Your task to perform on an android device: toggle priority inbox in the gmail app Image 0: 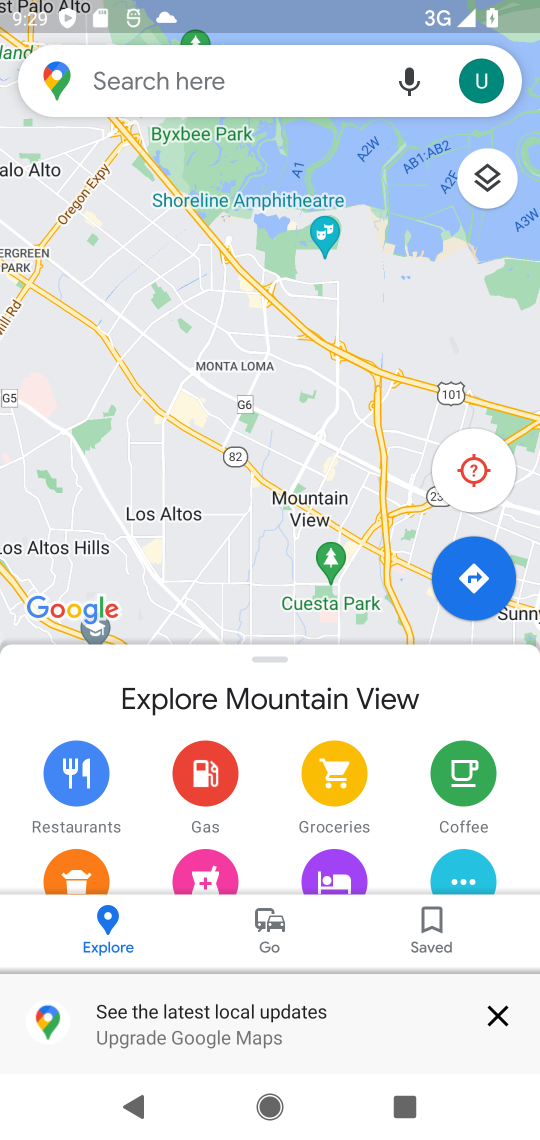
Step 0: press home button
Your task to perform on an android device: toggle priority inbox in the gmail app Image 1: 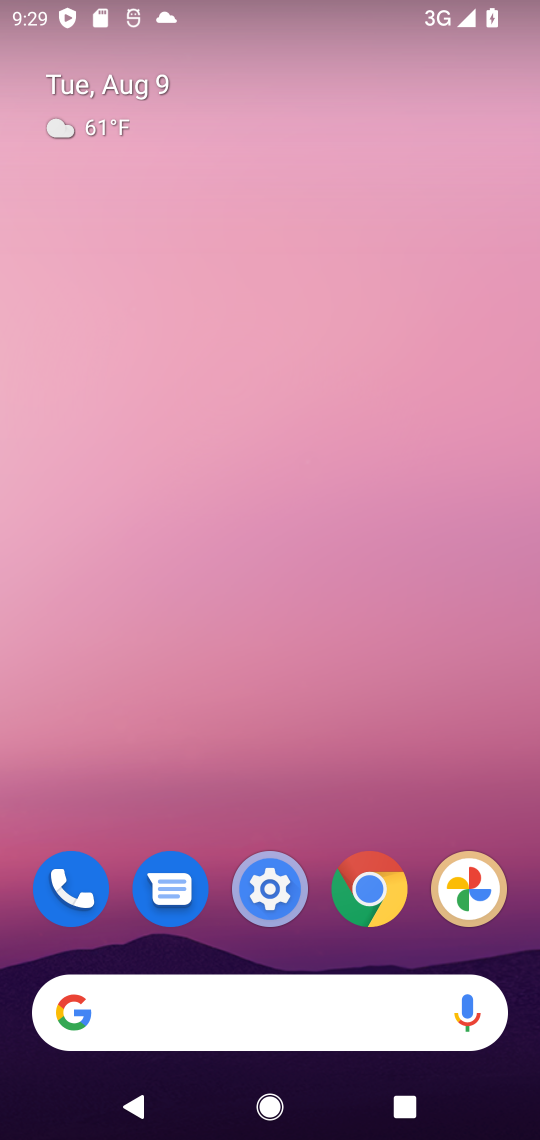
Step 1: drag from (181, 943) to (87, 205)
Your task to perform on an android device: toggle priority inbox in the gmail app Image 2: 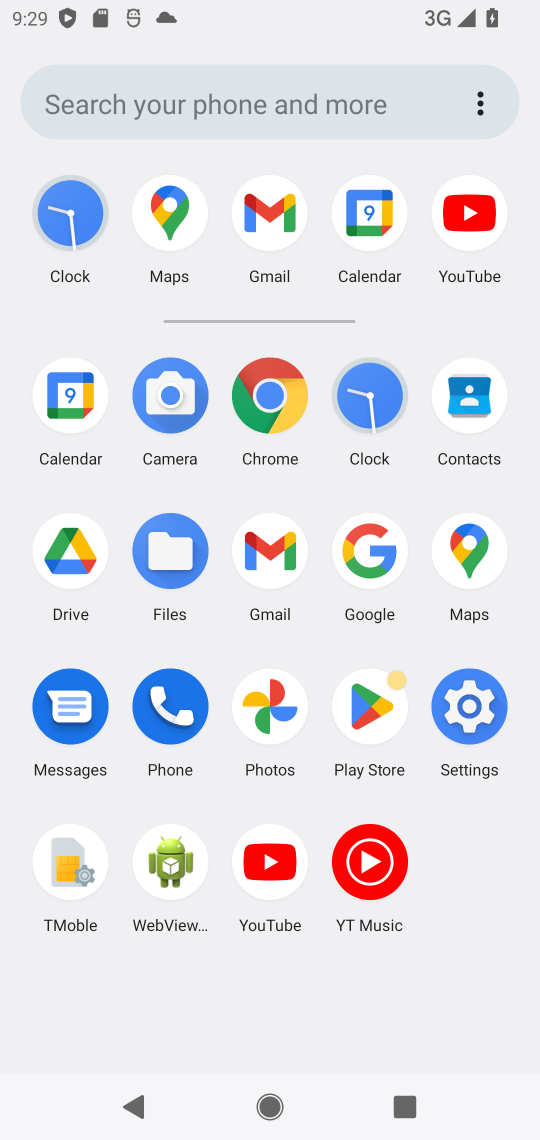
Step 2: click (262, 216)
Your task to perform on an android device: toggle priority inbox in the gmail app Image 3: 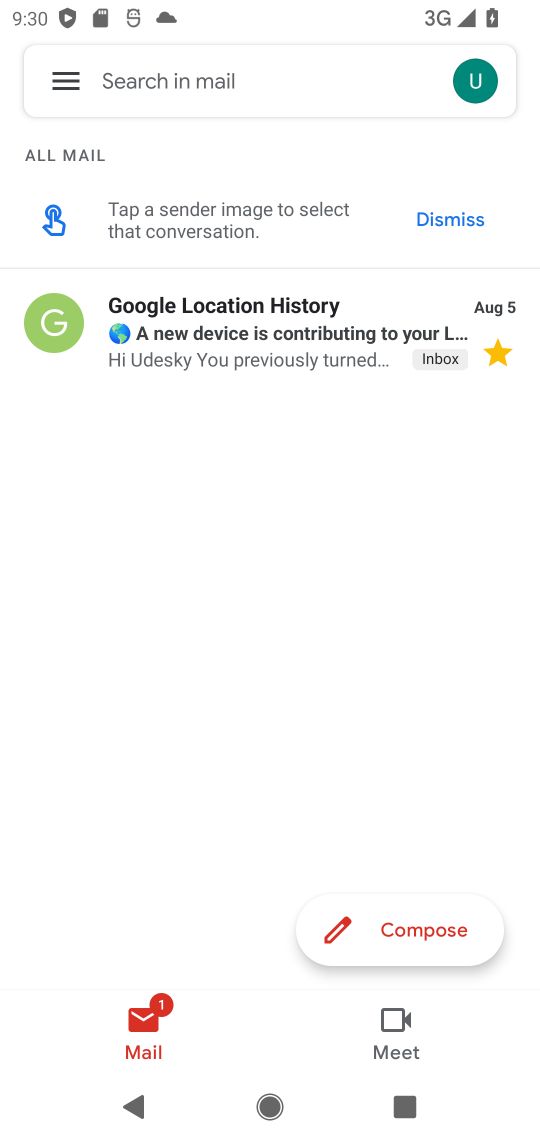
Step 3: click (45, 71)
Your task to perform on an android device: toggle priority inbox in the gmail app Image 4: 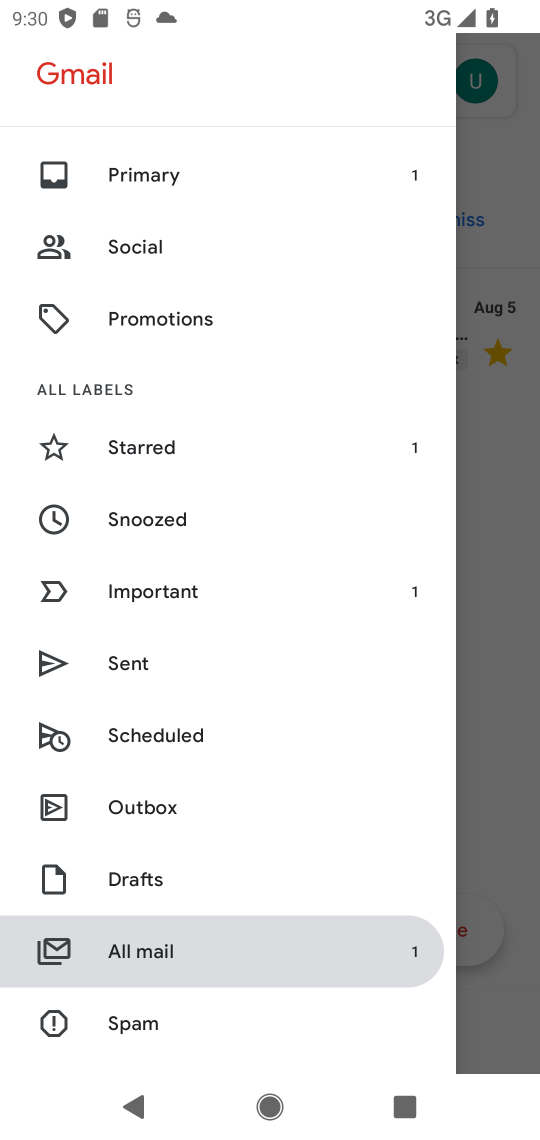
Step 4: drag from (191, 968) to (260, 197)
Your task to perform on an android device: toggle priority inbox in the gmail app Image 5: 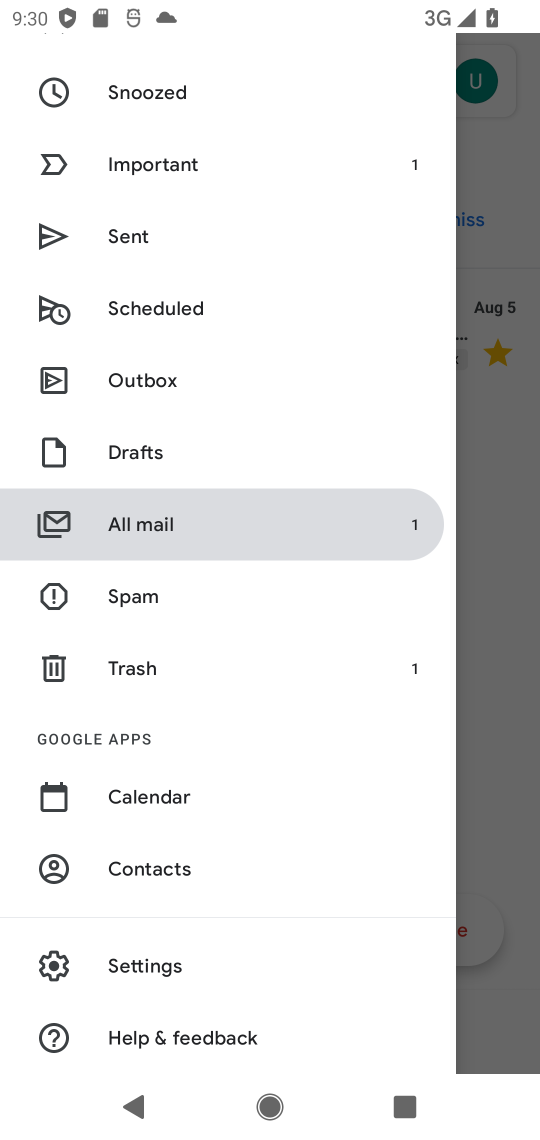
Step 5: click (161, 973)
Your task to perform on an android device: toggle priority inbox in the gmail app Image 6: 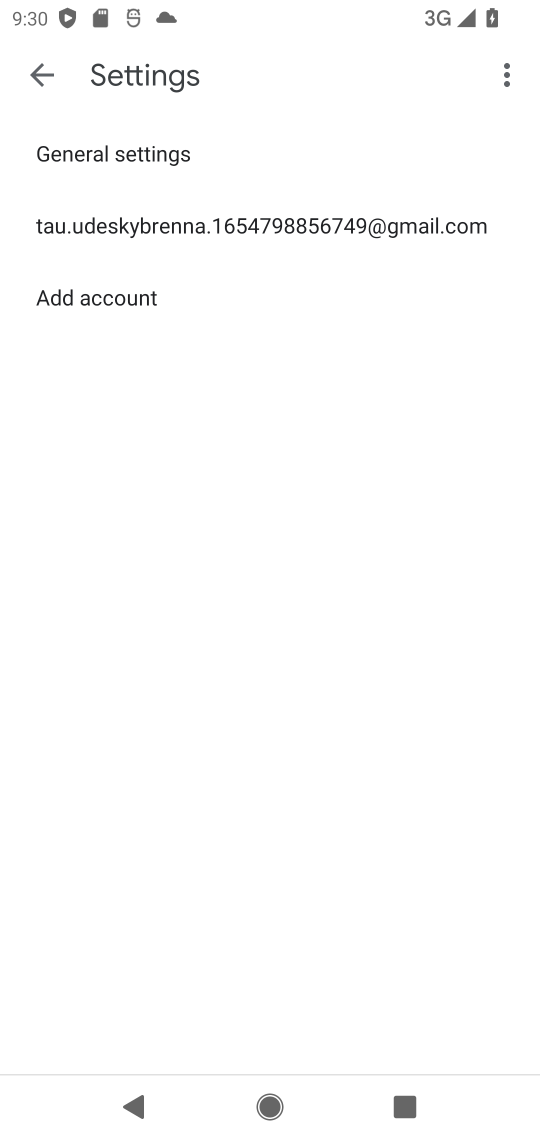
Step 6: click (127, 221)
Your task to perform on an android device: toggle priority inbox in the gmail app Image 7: 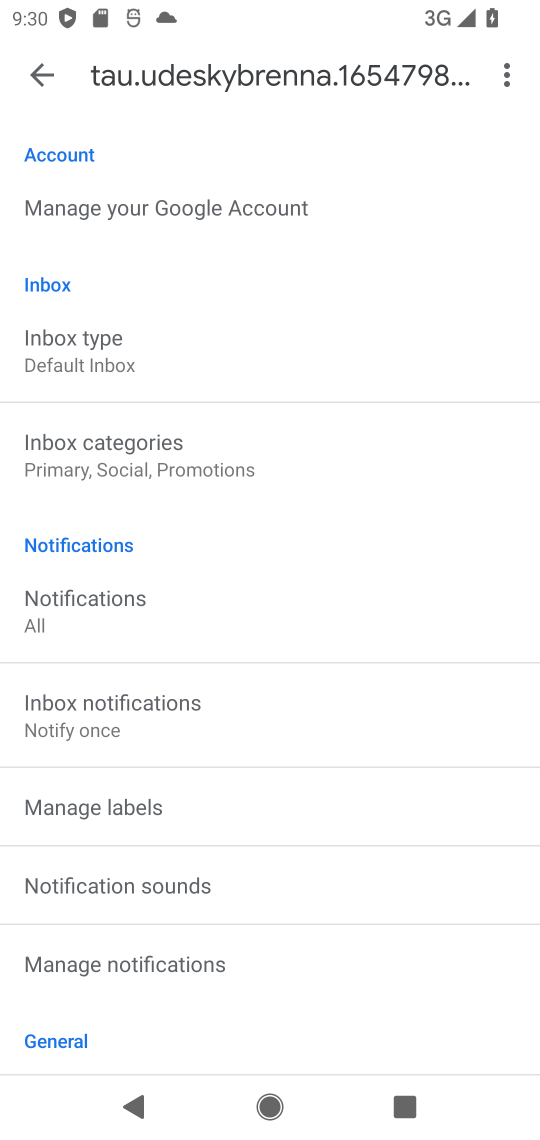
Step 7: click (94, 354)
Your task to perform on an android device: toggle priority inbox in the gmail app Image 8: 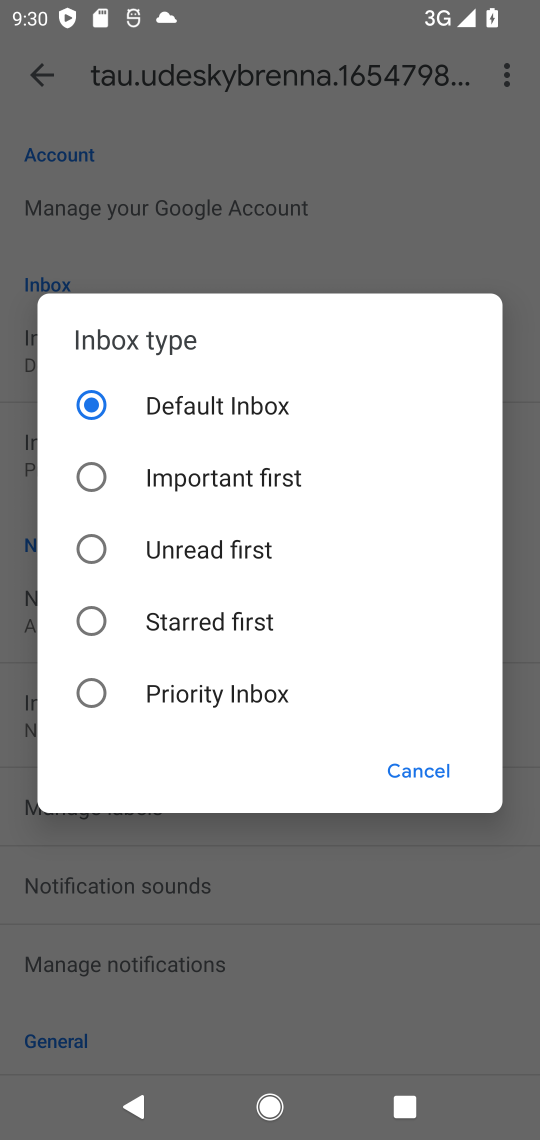
Step 8: click (213, 699)
Your task to perform on an android device: toggle priority inbox in the gmail app Image 9: 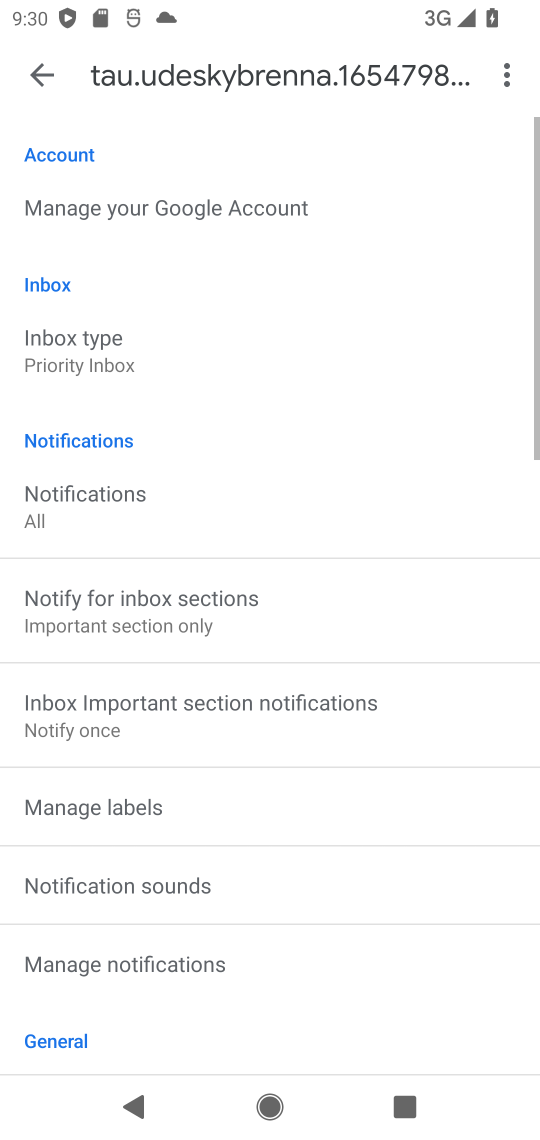
Step 9: task complete